Your task to perform on an android device: toggle data saver in the chrome app Image 0: 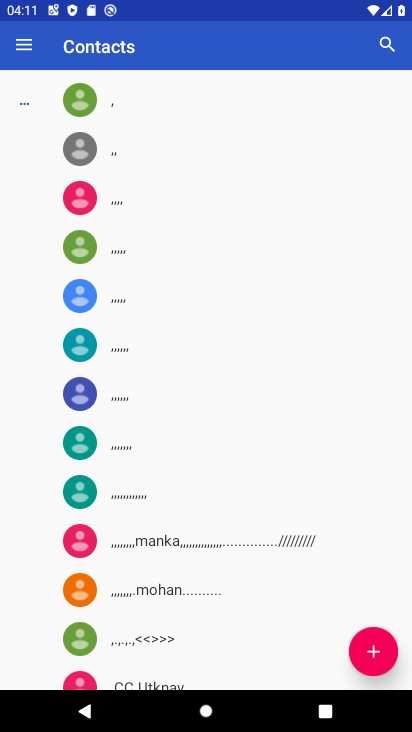
Step 0: press back button
Your task to perform on an android device: toggle data saver in the chrome app Image 1: 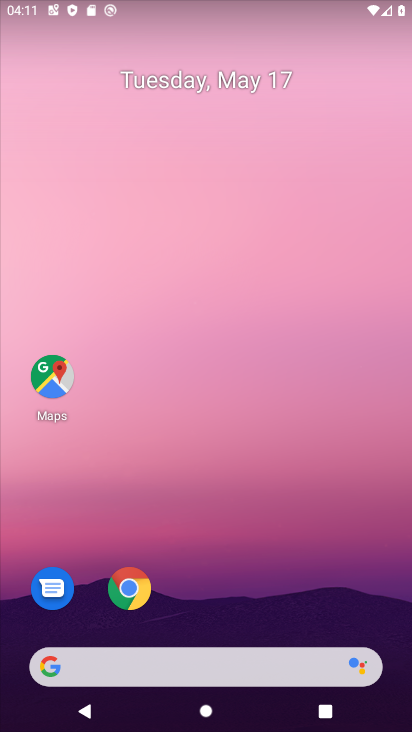
Step 1: click (130, 588)
Your task to perform on an android device: toggle data saver in the chrome app Image 2: 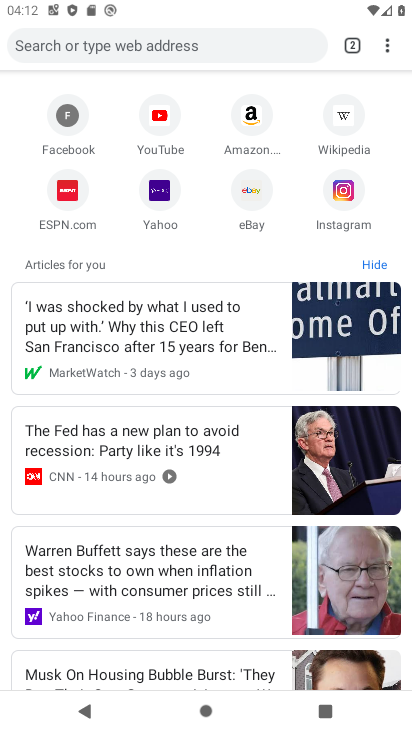
Step 2: click (387, 44)
Your task to perform on an android device: toggle data saver in the chrome app Image 3: 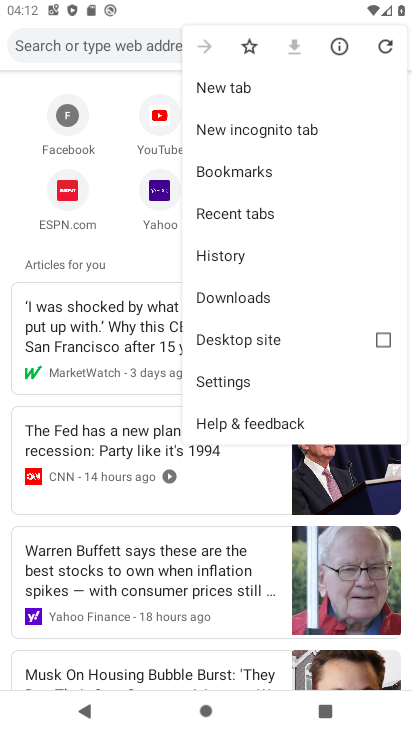
Step 3: click (244, 377)
Your task to perform on an android device: toggle data saver in the chrome app Image 4: 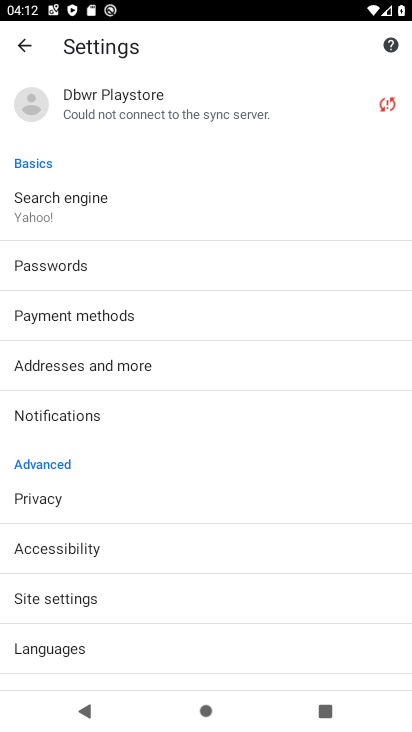
Step 4: drag from (116, 588) to (121, 502)
Your task to perform on an android device: toggle data saver in the chrome app Image 5: 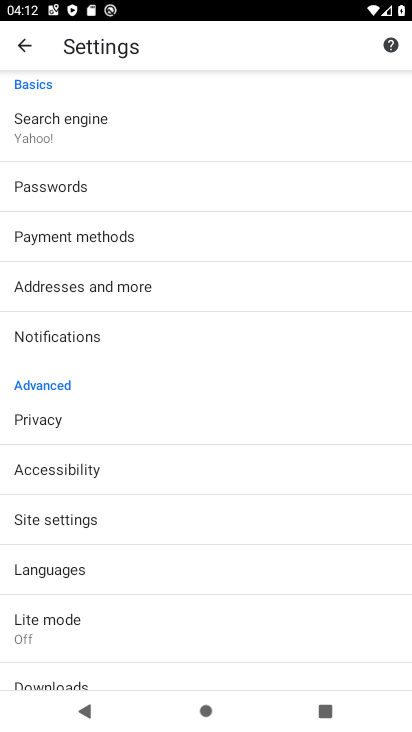
Step 5: click (44, 611)
Your task to perform on an android device: toggle data saver in the chrome app Image 6: 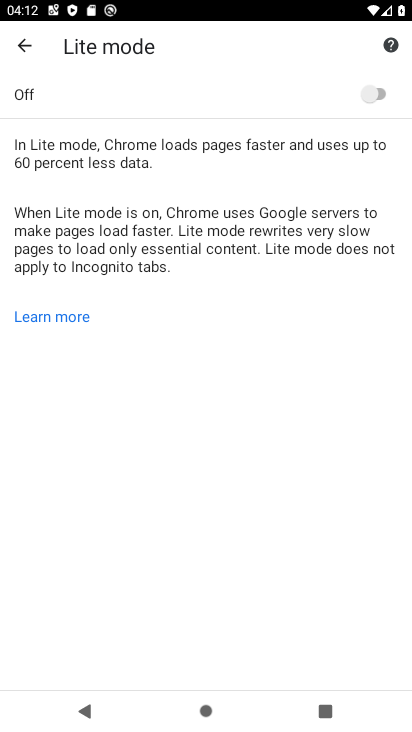
Step 6: click (377, 99)
Your task to perform on an android device: toggle data saver in the chrome app Image 7: 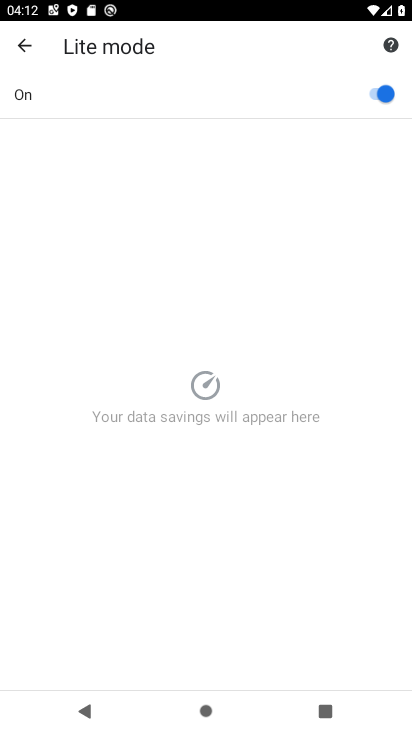
Step 7: task complete